Your task to perform on an android device: Open the map Image 0: 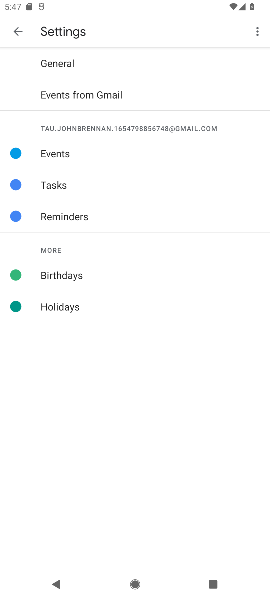
Step 0: press home button
Your task to perform on an android device: Open the map Image 1: 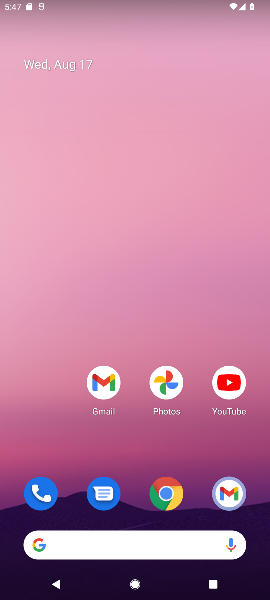
Step 1: drag from (151, 511) to (249, 4)
Your task to perform on an android device: Open the map Image 2: 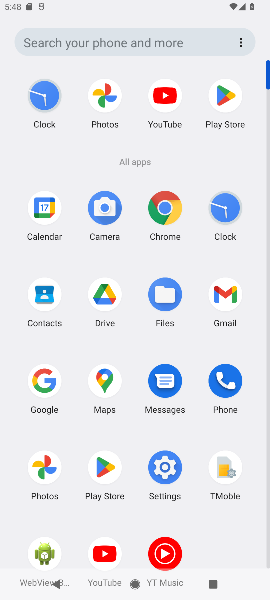
Step 2: click (107, 378)
Your task to perform on an android device: Open the map Image 3: 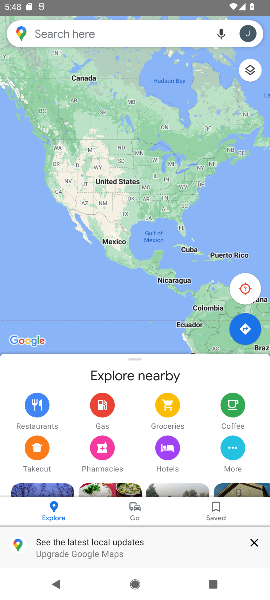
Step 3: task complete